Your task to perform on an android device: turn on javascript in the chrome app Image 0: 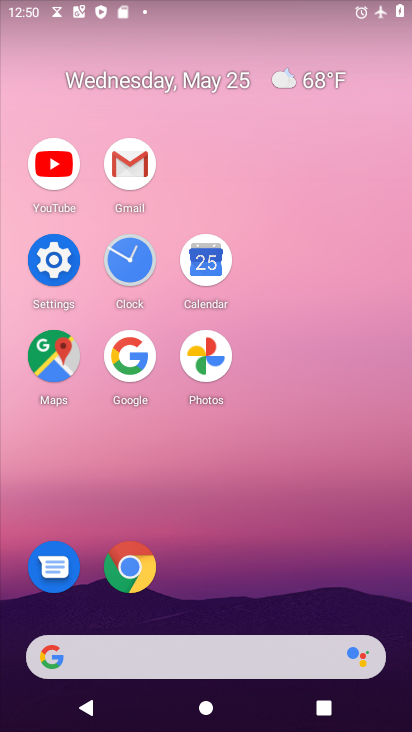
Step 0: click (140, 559)
Your task to perform on an android device: turn on javascript in the chrome app Image 1: 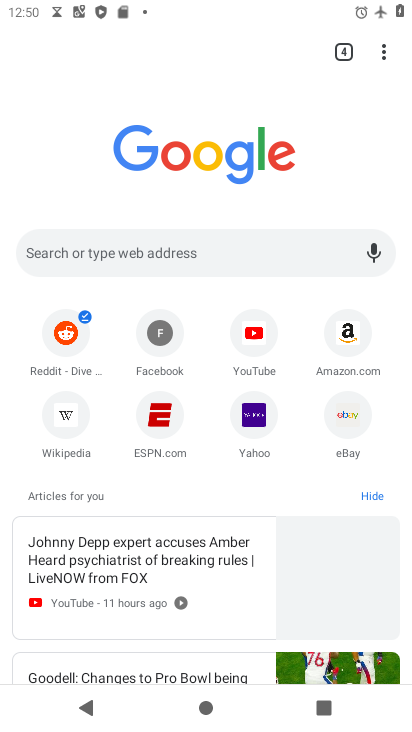
Step 1: click (381, 48)
Your task to perform on an android device: turn on javascript in the chrome app Image 2: 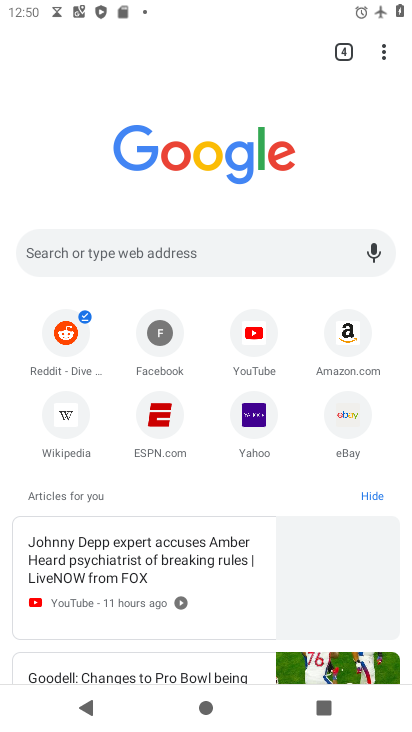
Step 2: click (381, 54)
Your task to perform on an android device: turn on javascript in the chrome app Image 3: 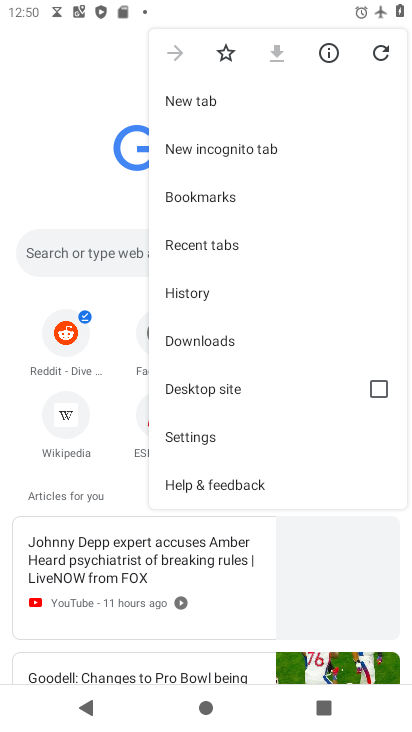
Step 3: drag from (321, 384) to (275, 137)
Your task to perform on an android device: turn on javascript in the chrome app Image 4: 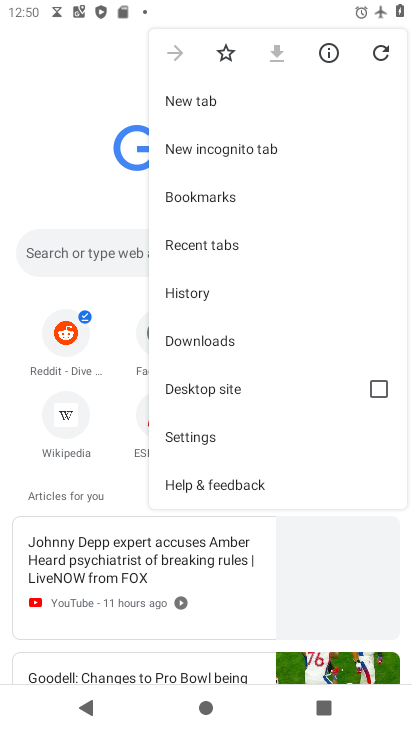
Step 4: click (216, 431)
Your task to perform on an android device: turn on javascript in the chrome app Image 5: 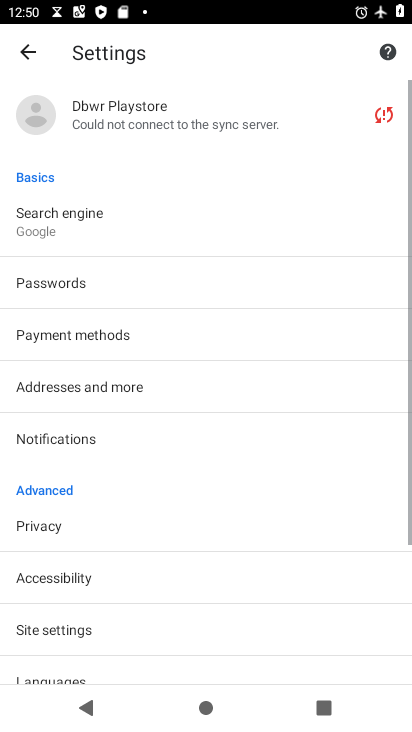
Step 5: drag from (204, 573) to (170, 215)
Your task to perform on an android device: turn on javascript in the chrome app Image 6: 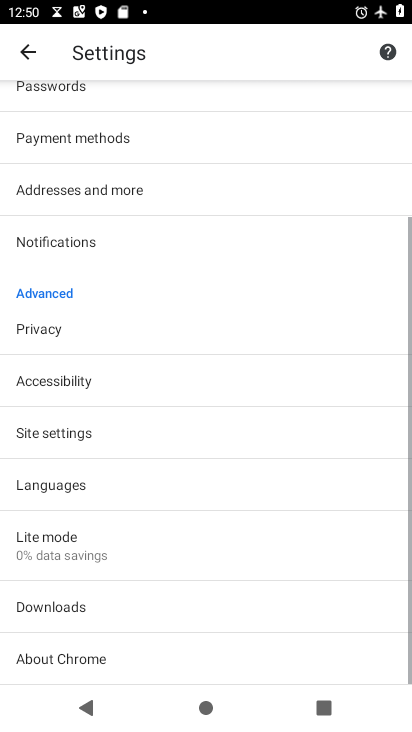
Step 6: click (154, 434)
Your task to perform on an android device: turn on javascript in the chrome app Image 7: 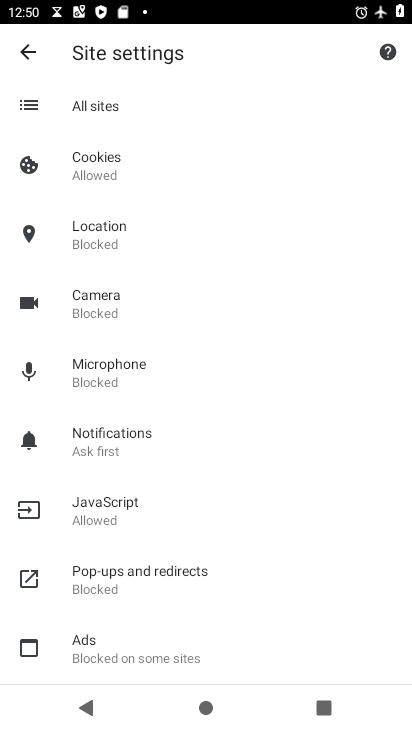
Step 7: click (157, 516)
Your task to perform on an android device: turn on javascript in the chrome app Image 8: 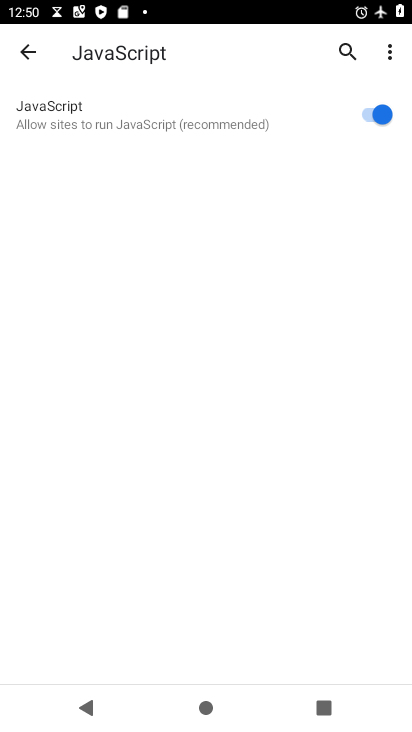
Step 8: task complete